Your task to perform on an android device: Open Wikipedia Image 0: 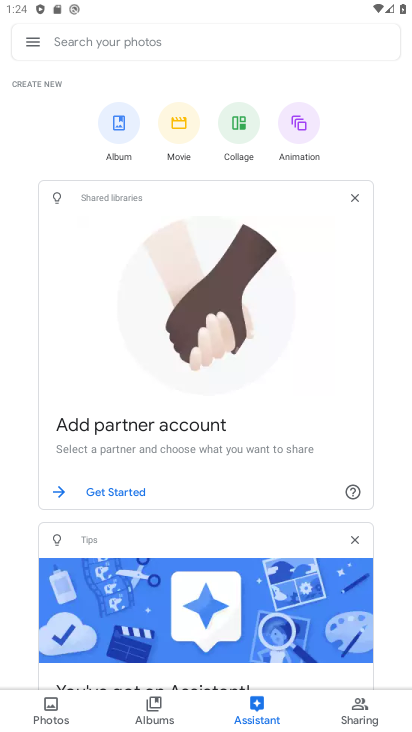
Step 0: press home button
Your task to perform on an android device: Open Wikipedia Image 1: 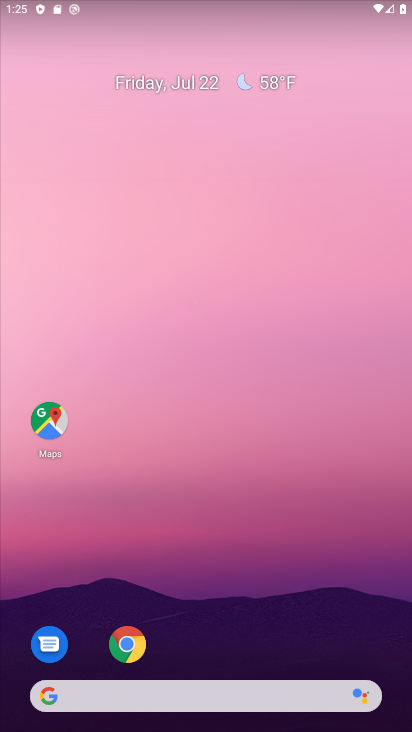
Step 1: click (119, 640)
Your task to perform on an android device: Open Wikipedia Image 2: 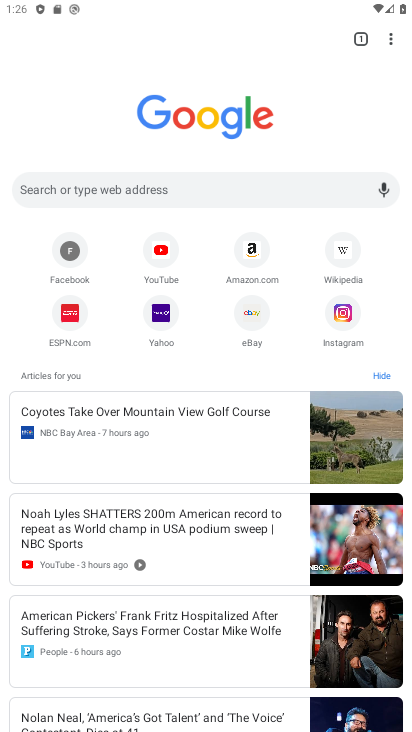
Step 2: click (346, 253)
Your task to perform on an android device: Open Wikipedia Image 3: 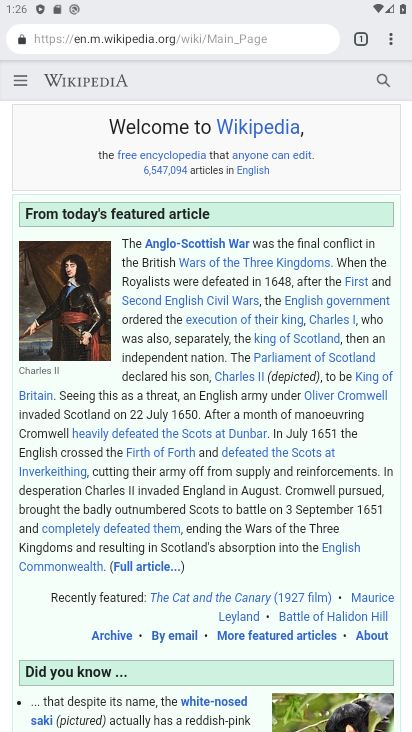
Step 3: task complete